Your task to perform on an android device: all mails in gmail Image 0: 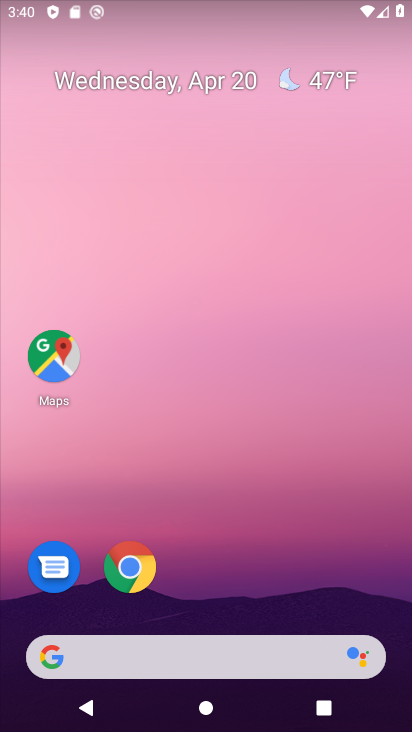
Step 0: drag from (265, 623) to (232, 239)
Your task to perform on an android device: all mails in gmail Image 1: 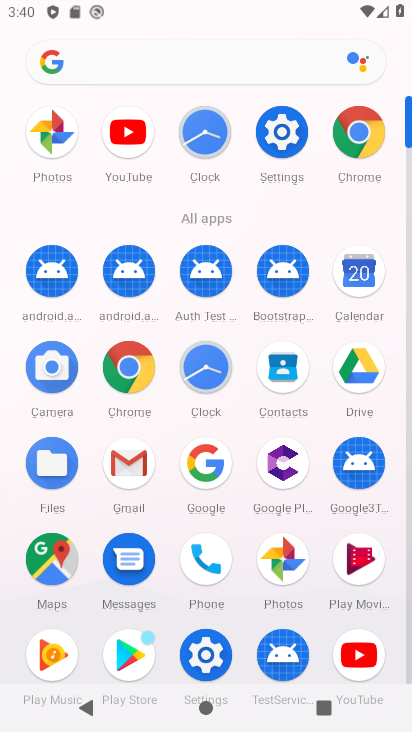
Step 1: click (134, 462)
Your task to perform on an android device: all mails in gmail Image 2: 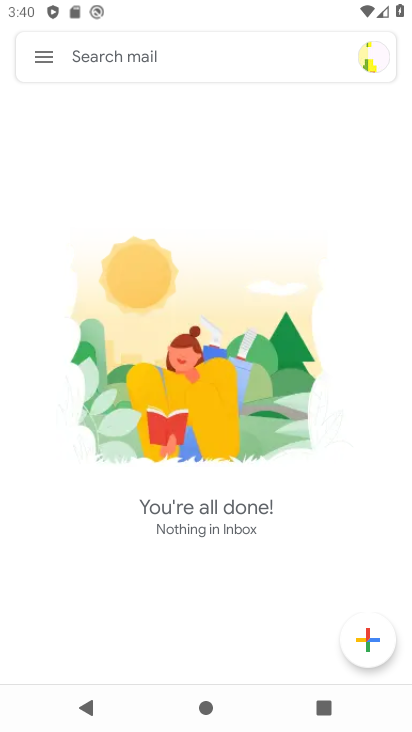
Step 2: click (50, 67)
Your task to perform on an android device: all mails in gmail Image 3: 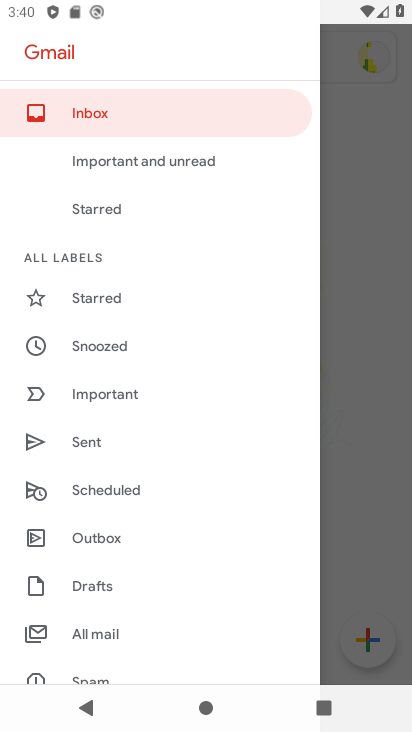
Step 3: click (156, 642)
Your task to perform on an android device: all mails in gmail Image 4: 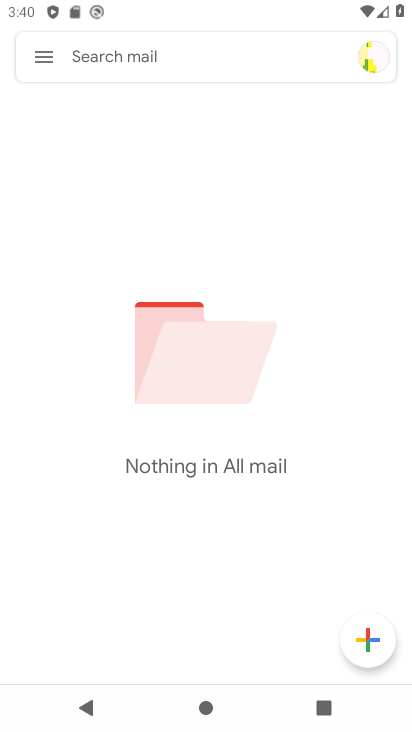
Step 4: task complete